Your task to perform on an android device: Open privacy settings Image 0: 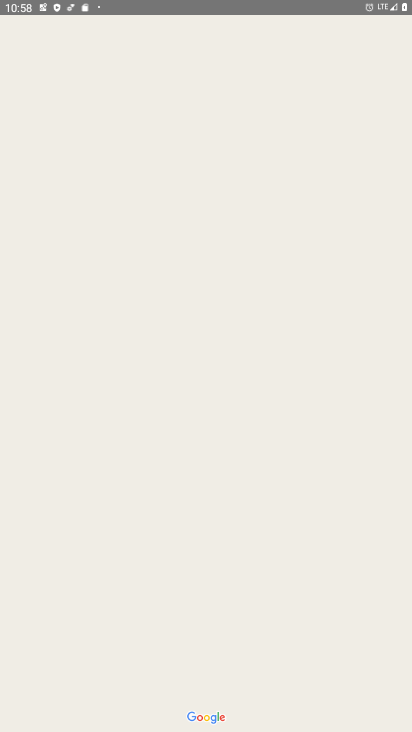
Step 0: drag from (217, 603) to (302, 280)
Your task to perform on an android device: Open privacy settings Image 1: 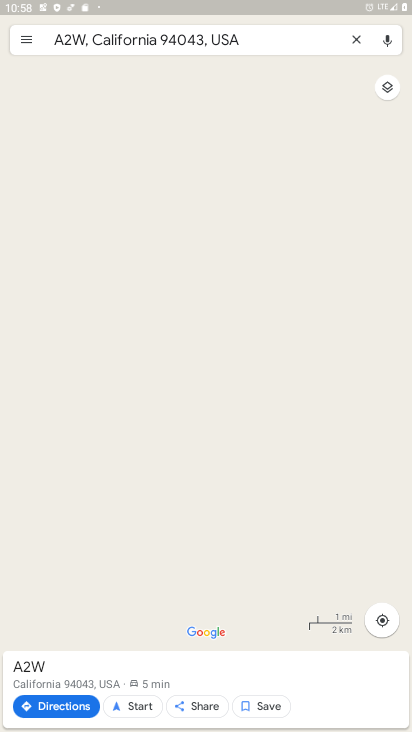
Step 1: press home button
Your task to perform on an android device: Open privacy settings Image 2: 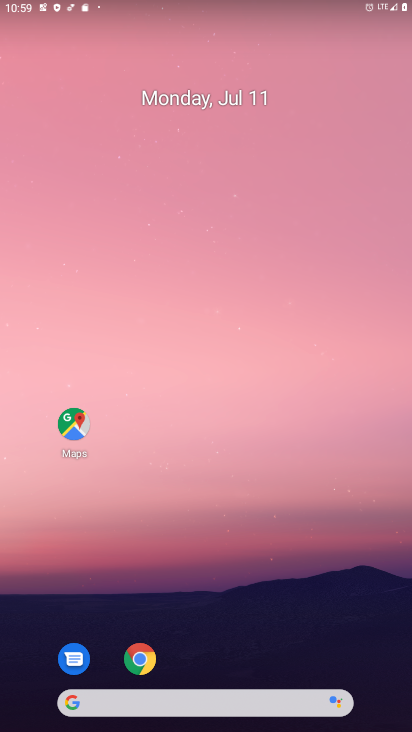
Step 2: drag from (234, 527) to (200, 95)
Your task to perform on an android device: Open privacy settings Image 3: 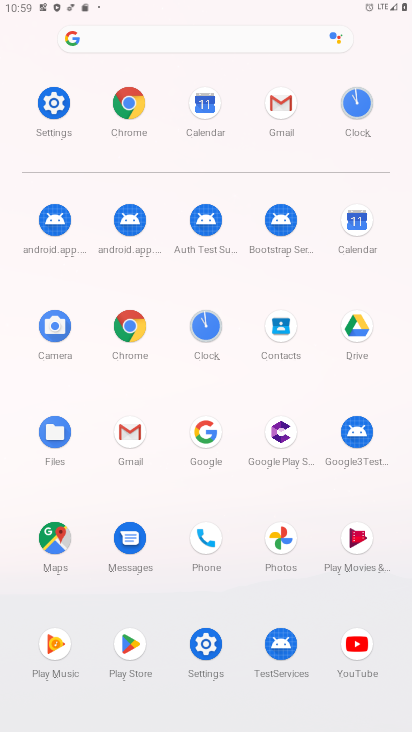
Step 3: click (198, 643)
Your task to perform on an android device: Open privacy settings Image 4: 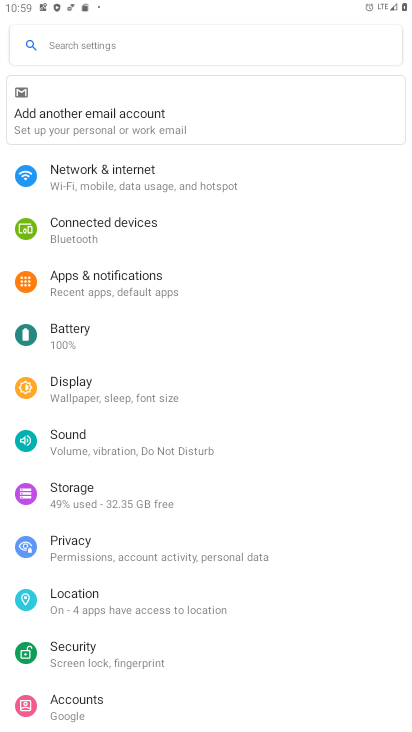
Step 4: drag from (139, 618) to (190, 241)
Your task to perform on an android device: Open privacy settings Image 5: 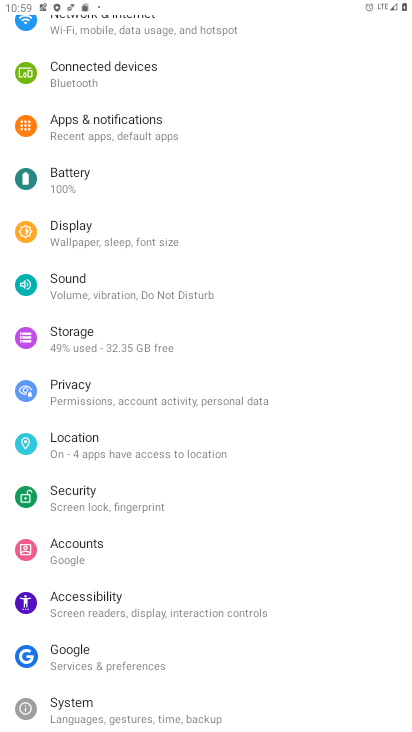
Step 5: click (81, 387)
Your task to perform on an android device: Open privacy settings Image 6: 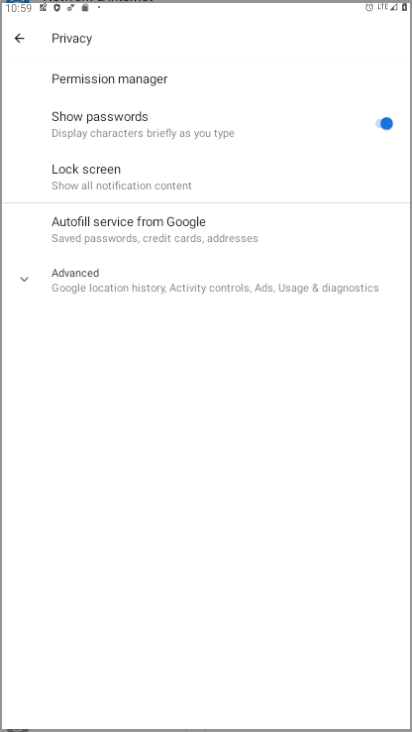
Step 6: task complete